Your task to perform on an android device: change the clock display to digital Image 0: 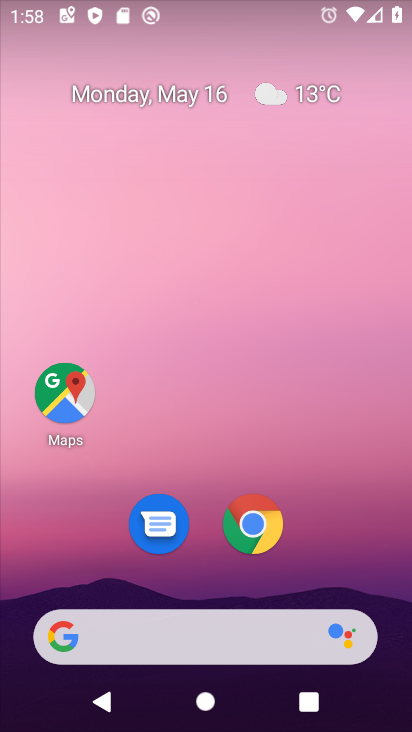
Step 0: drag from (367, 516) to (348, 50)
Your task to perform on an android device: change the clock display to digital Image 1: 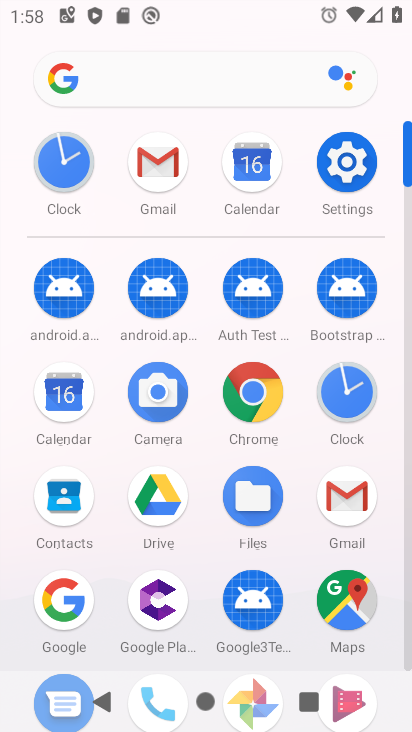
Step 1: click (63, 157)
Your task to perform on an android device: change the clock display to digital Image 2: 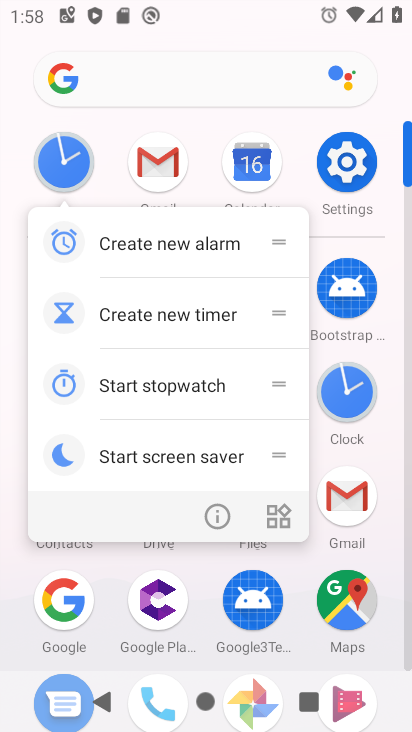
Step 2: click (62, 155)
Your task to perform on an android device: change the clock display to digital Image 3: 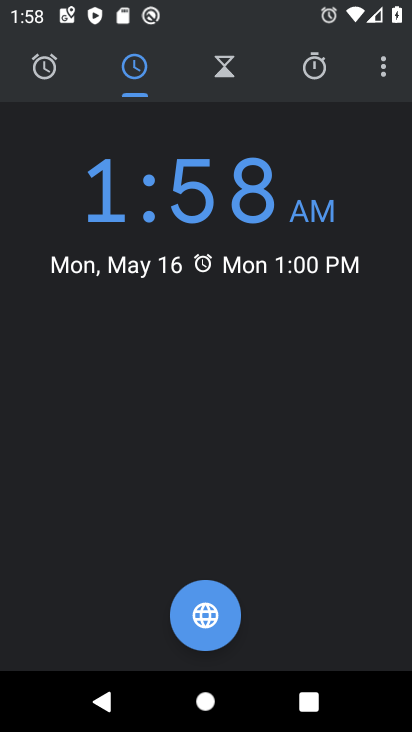
Step 3: task complete